Your task to perform on an android device: Add "asus rog" to the cart on ebay, then select checkout. Image 0: 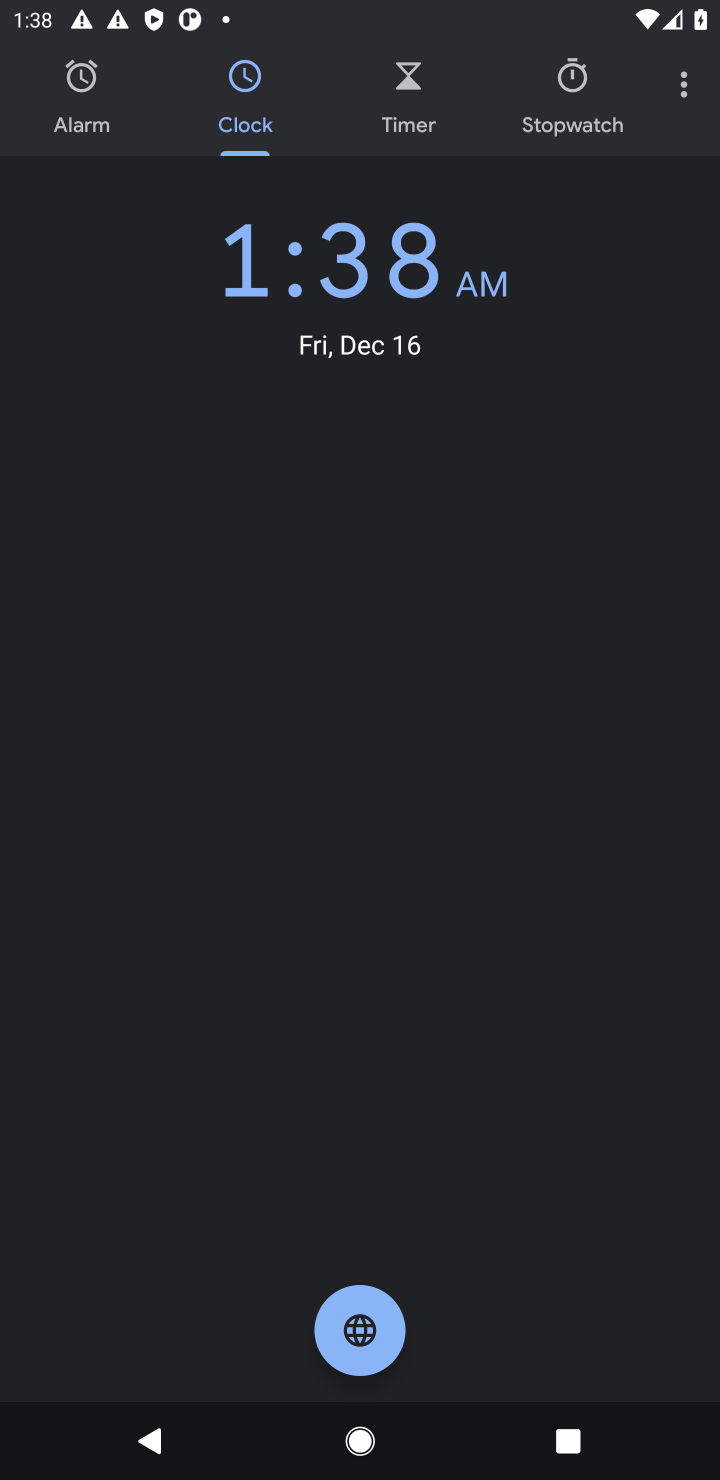
Step 0: press home button
Your task to perform on an android device: Add "asus rog" to the cart on ebay, then select checkout. Image 1: 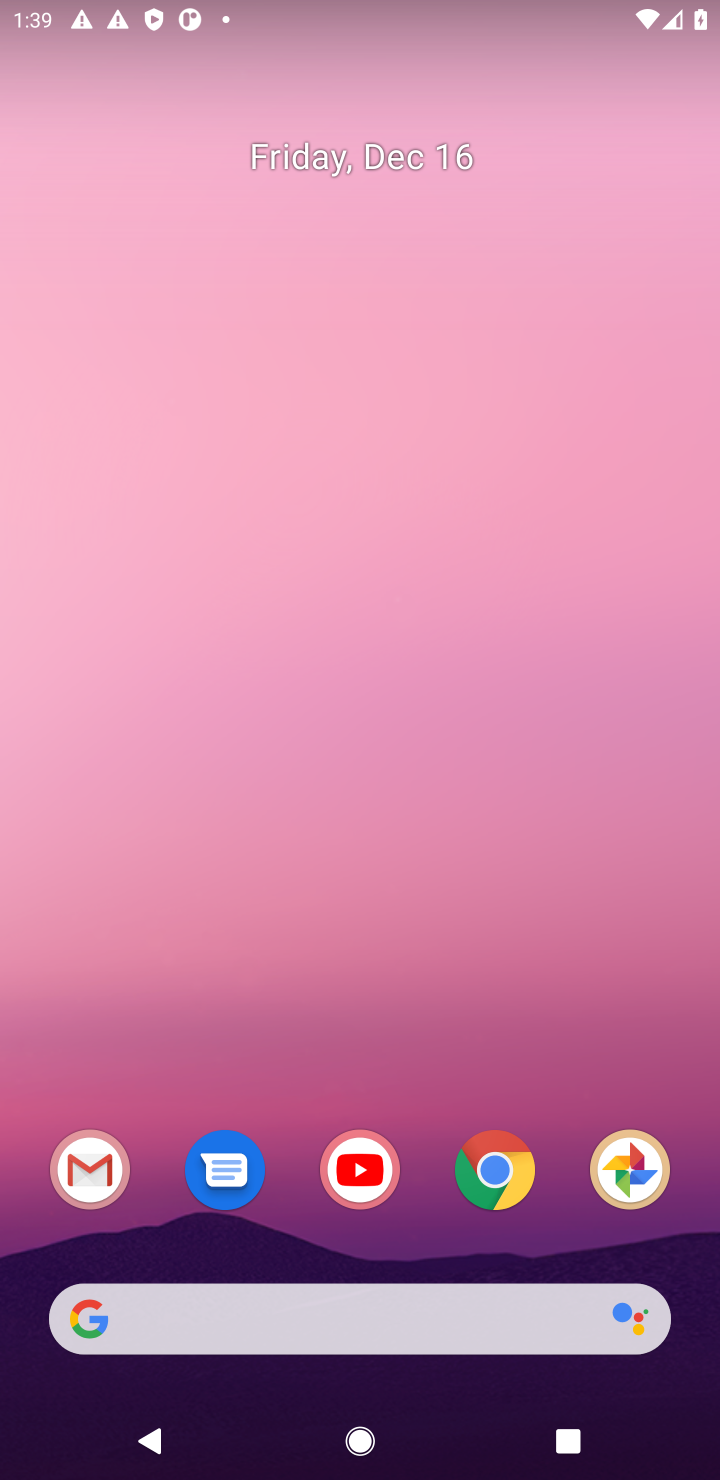
Step 1: click (484, 1179)
Your task to perform on an android device: Add "asus rog" to the cart on ebay, then select checkout. Image 2: 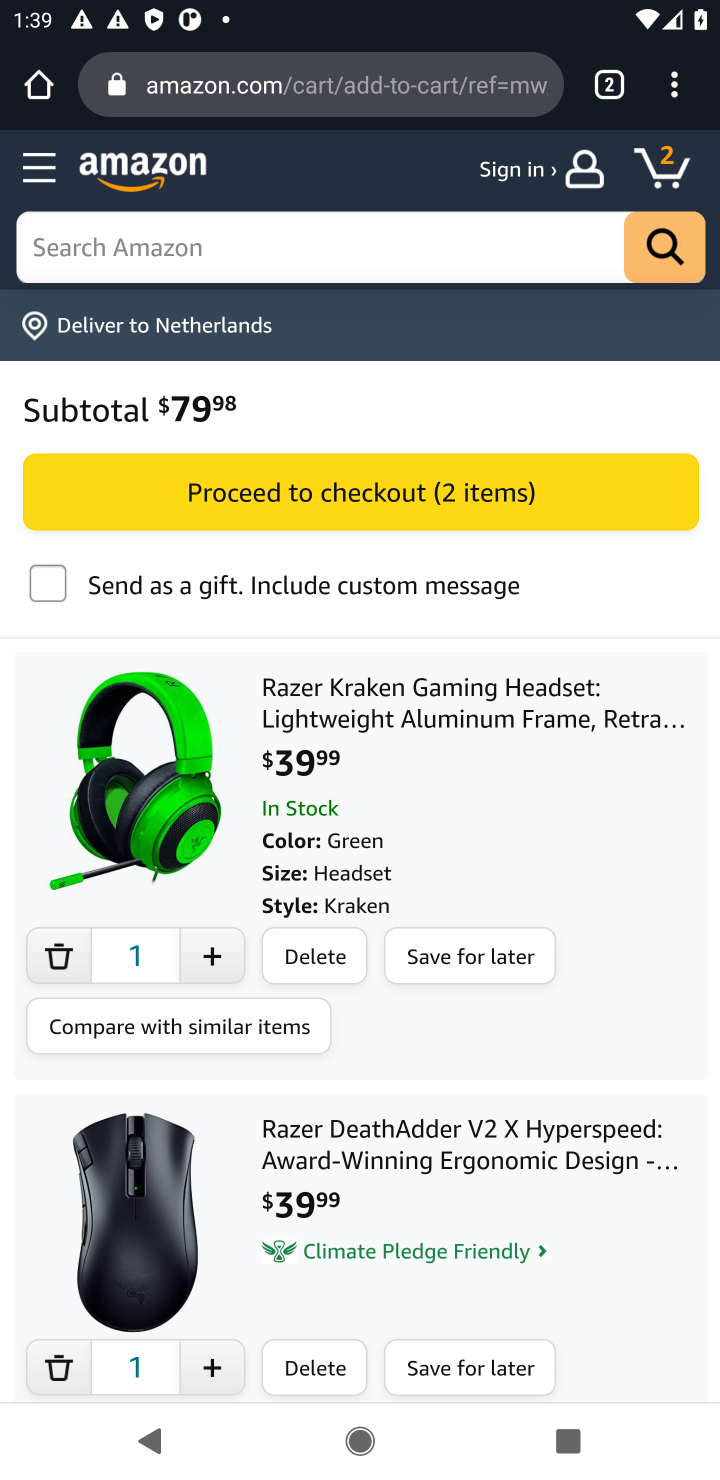
Step 2: click (317, 101)
Your task to perform on an android device: Add "asus rog" to the cart on ebay, then select checkout. Image 3: 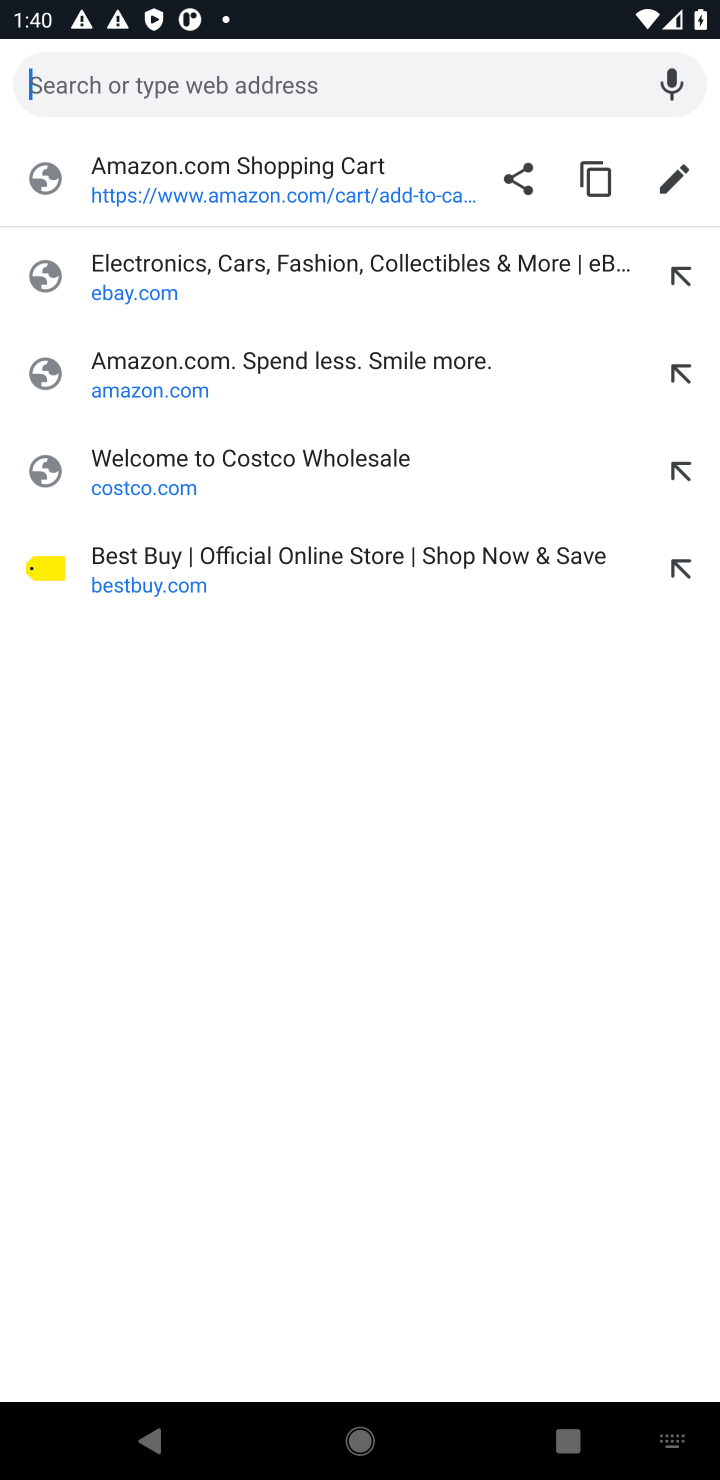
Step 3: click (137, 297)
Your task to perform on an android device: Add "asus rog" to the cart on ebay, then select checkout. Image 4: 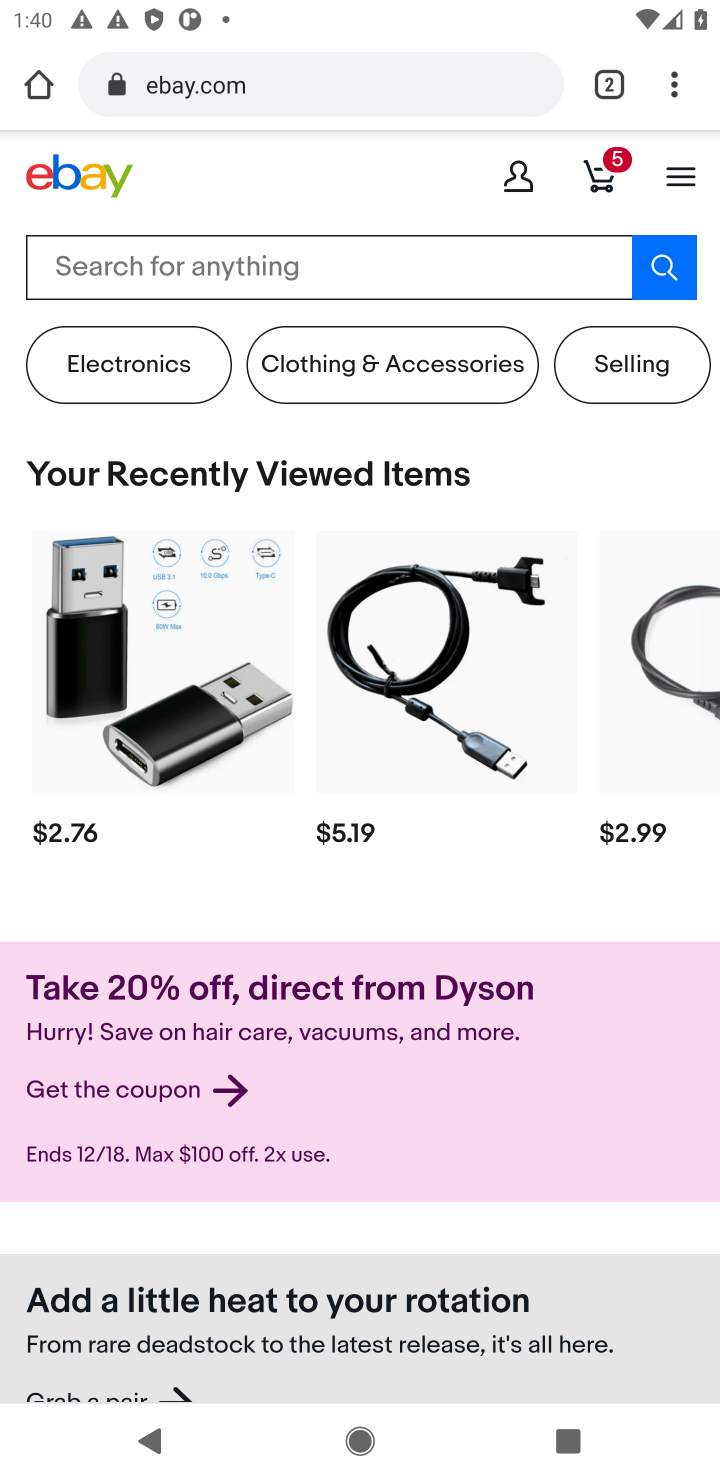
Step 4: click (136, 284)
Your task to perform on an android device: Add "asus rog" to the cart on ebay, then select checkout. Image 5: 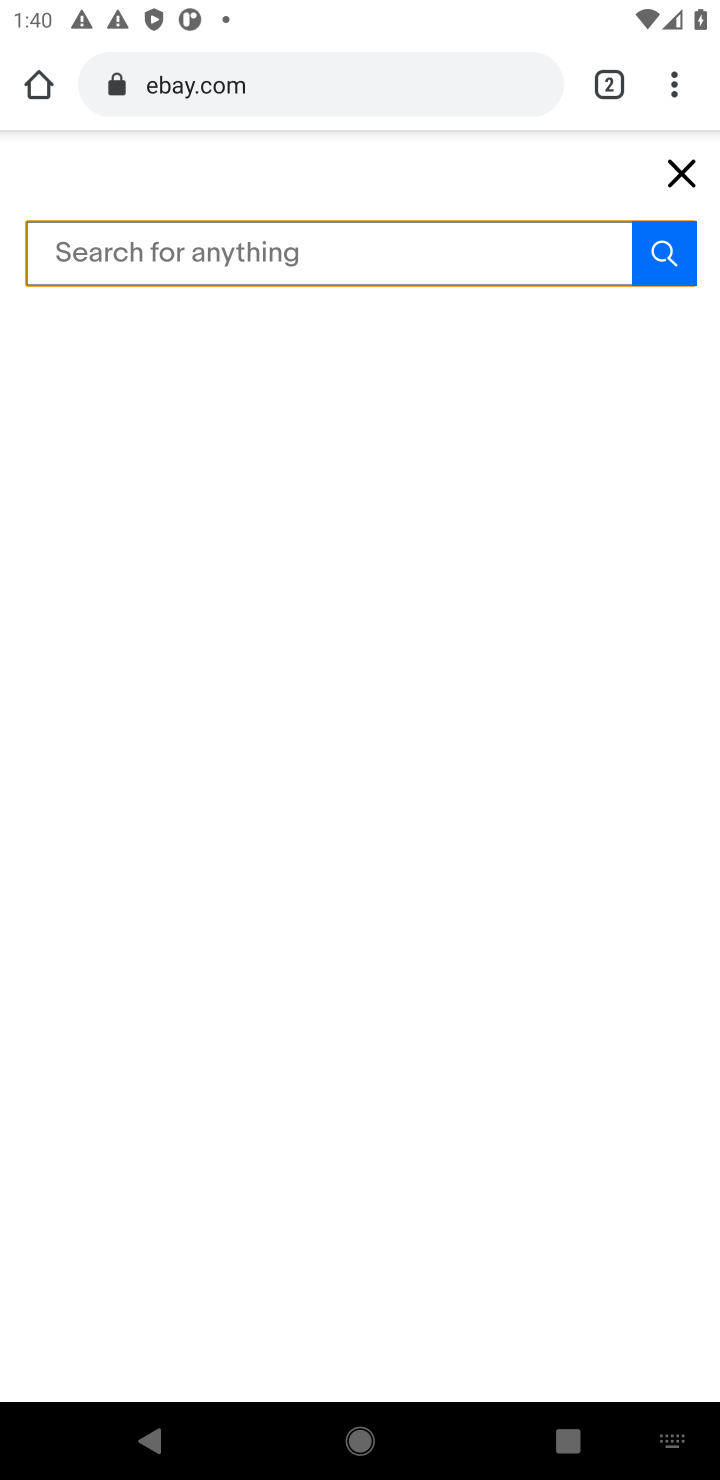
Step 5: type "asus rog"
Your task to perform on an android device: Add "asus rog" to the cart on ebay, then select checkout. Image 6: 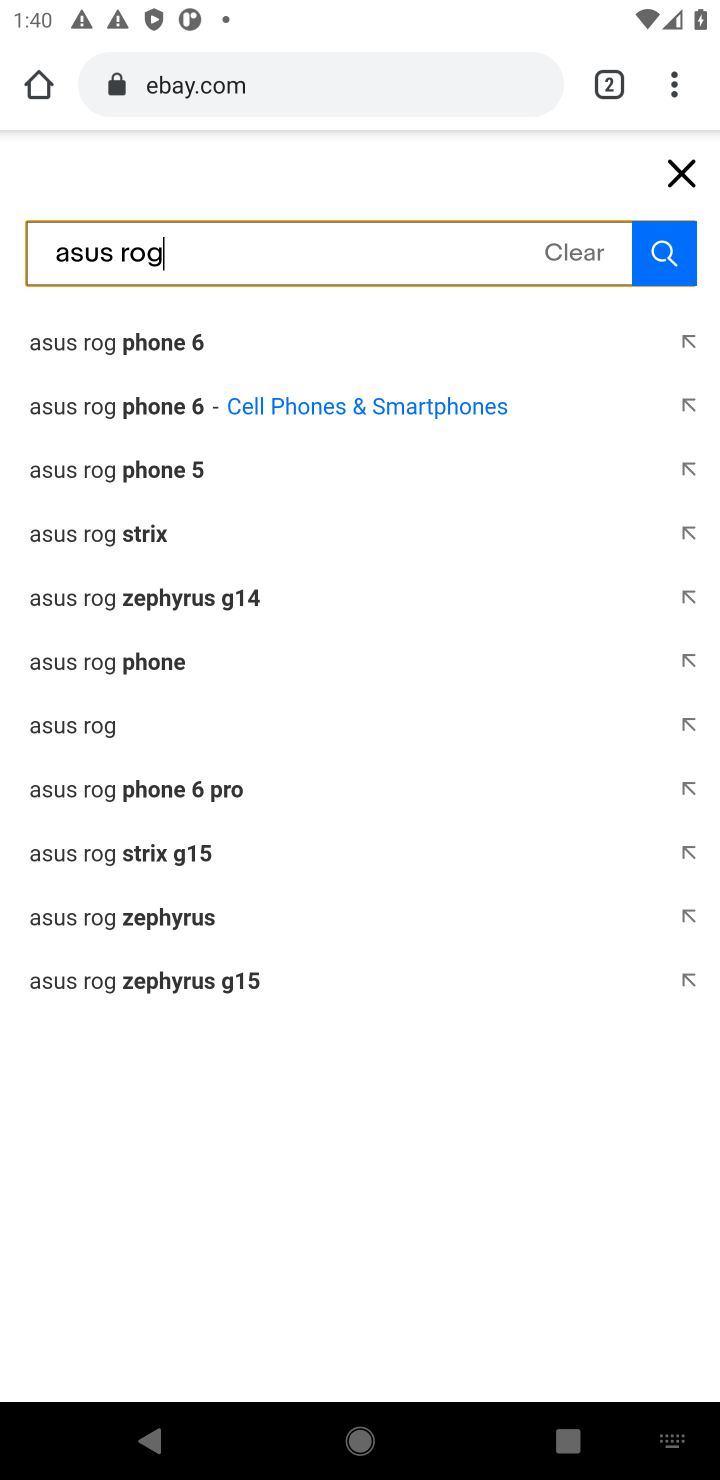
Step 6: click (88, 741)
Your task to perform on an android device: Add "asus rog" to the cart on ebay, then select checkout. Image 7: 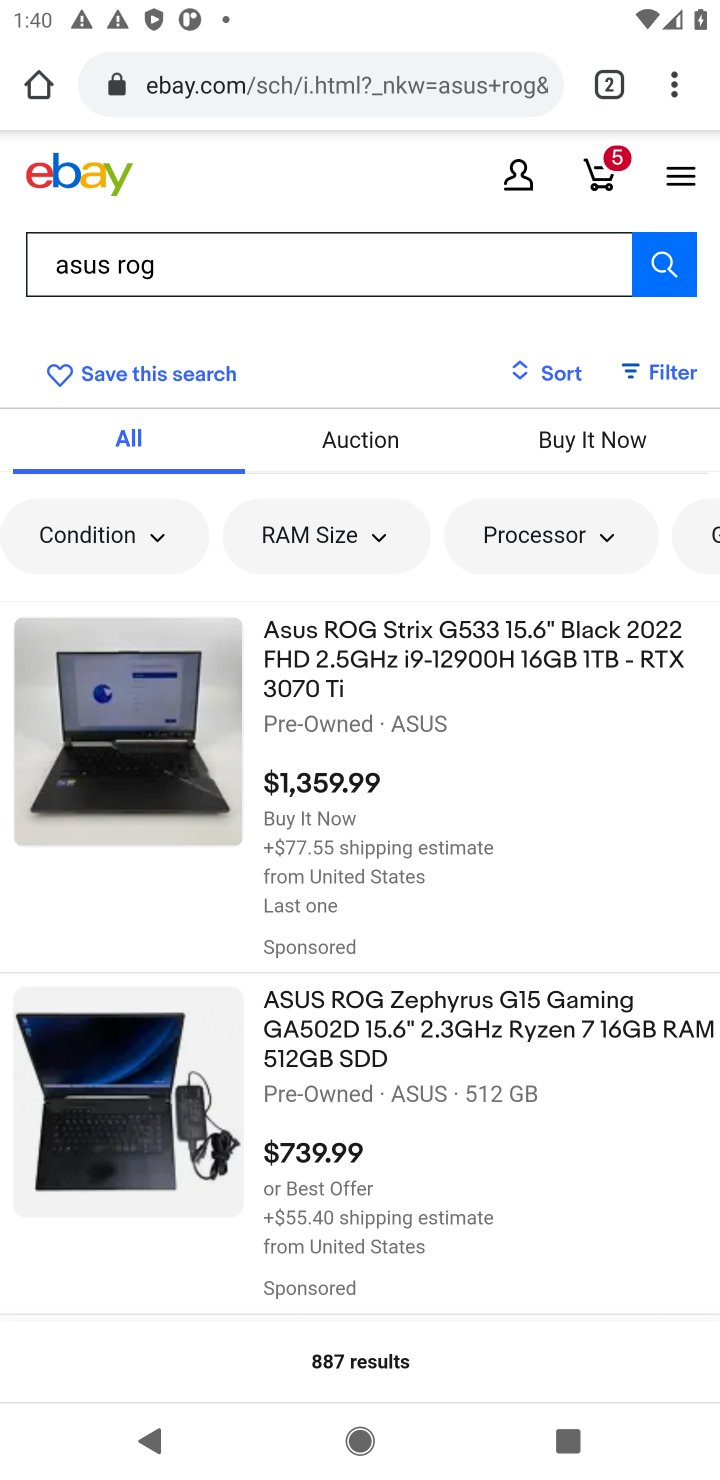
Step 7: click (305, 666)
Your task to perform on an android device: Add "asus rog" to the cart on ebay, then select checkout. Image 8: 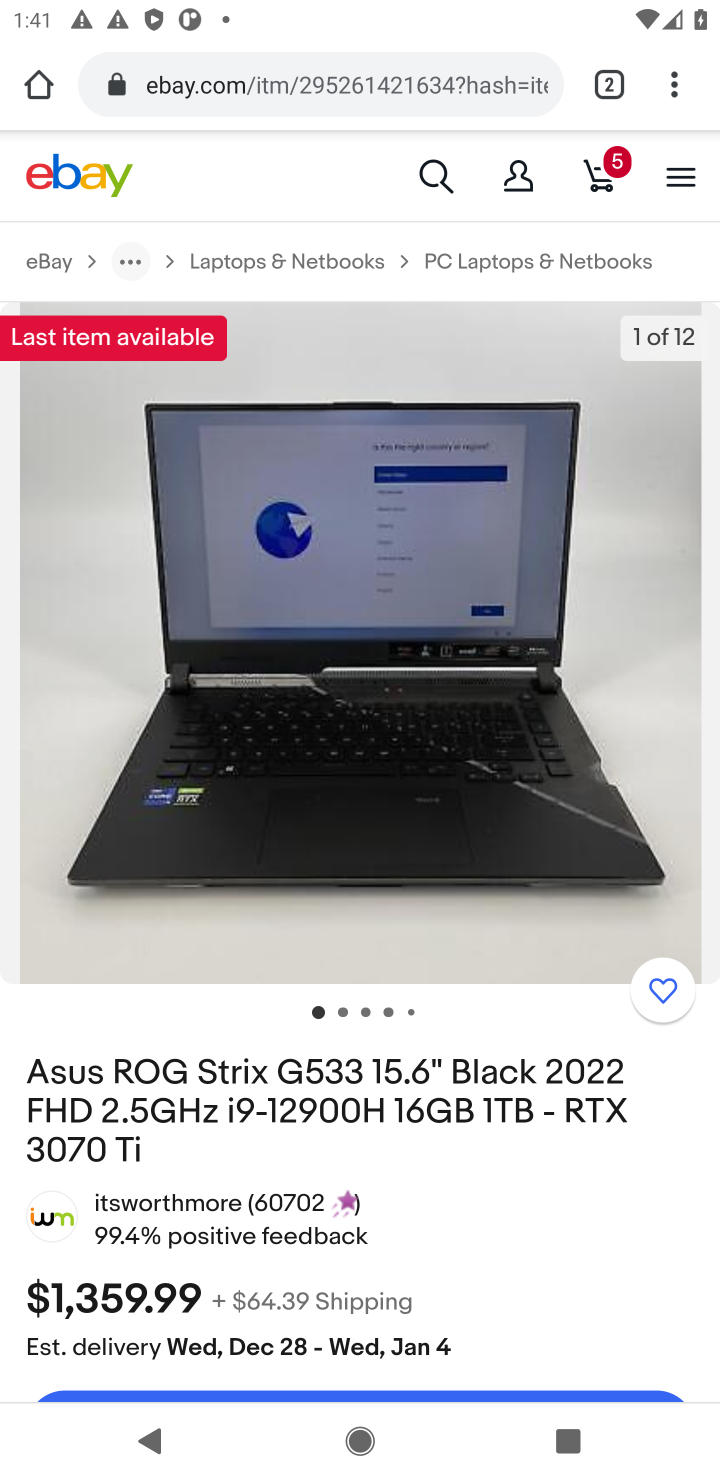
Step 8: drag from (421, 963) to (418, 447)
Your task to perform on an android device: Add "asus rog" to the cart on ebay, then select checkout. Image 9: 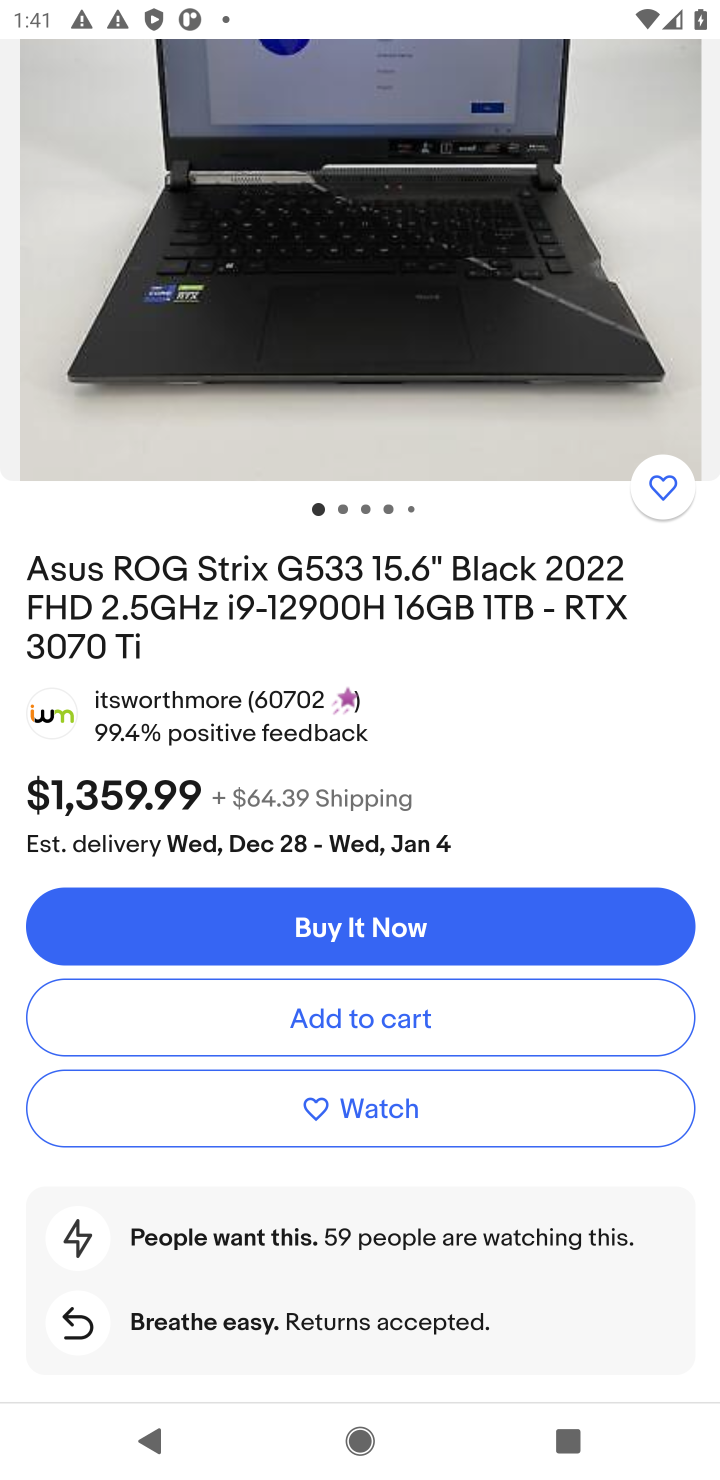
Step 9: click (324, 1016)
Your task to perform on an android device: Add "asus rog" to the cart on ebay, then select checkout. Image 10: 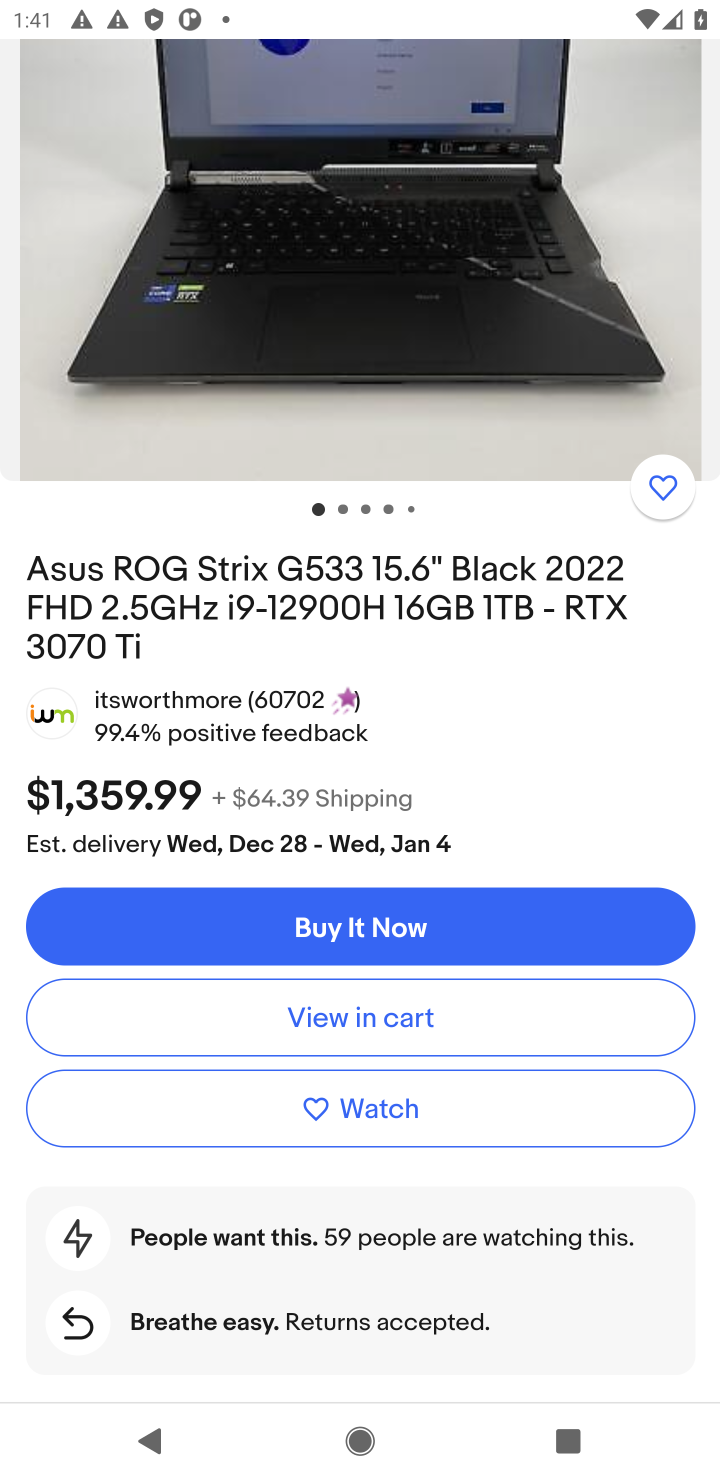
Step 10: click (324, 1016)
Your task to perform on an android device: Add "asus rog" to the cart on ebay, then select checkout. Image 11: 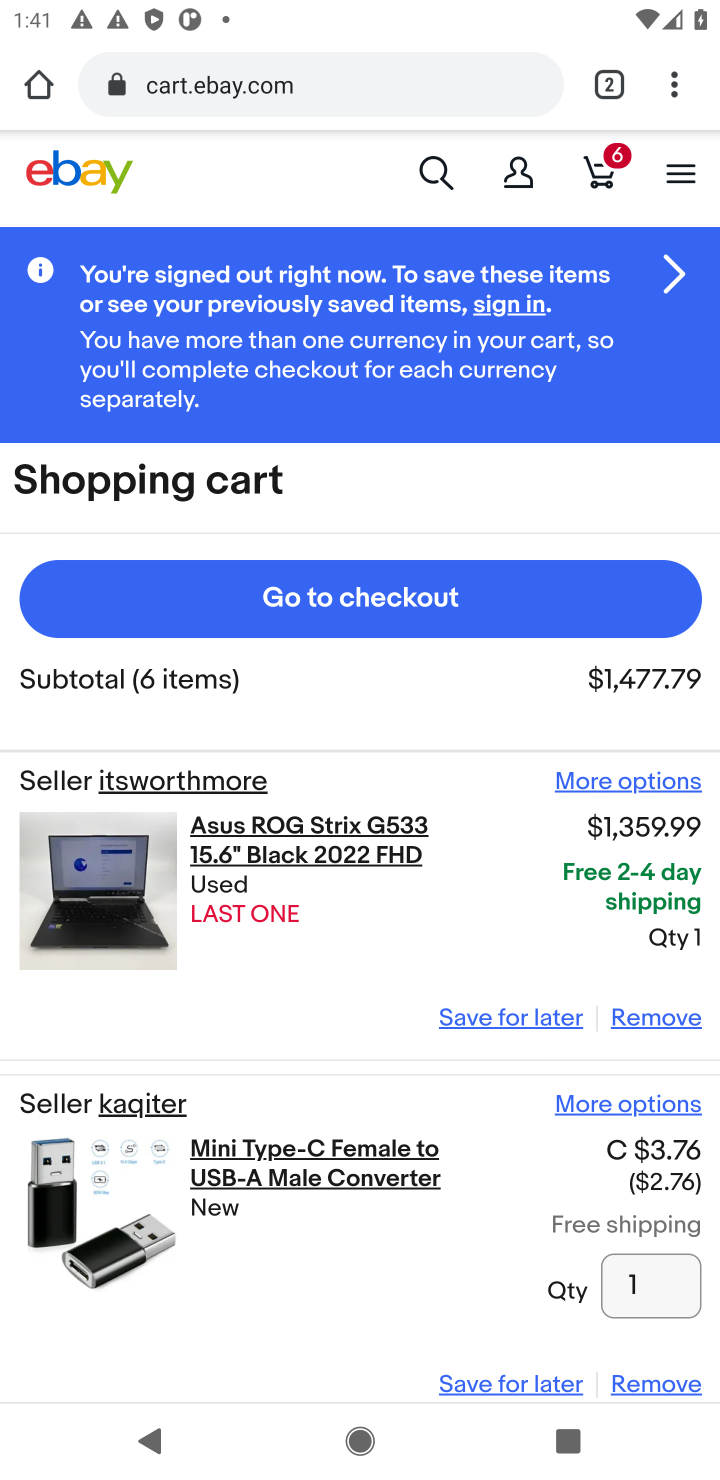
Step 11: click (355, 602)
Your task to perform on an android device: Add "asus rog" to the cart on ebay, then select checkout. Image 12: 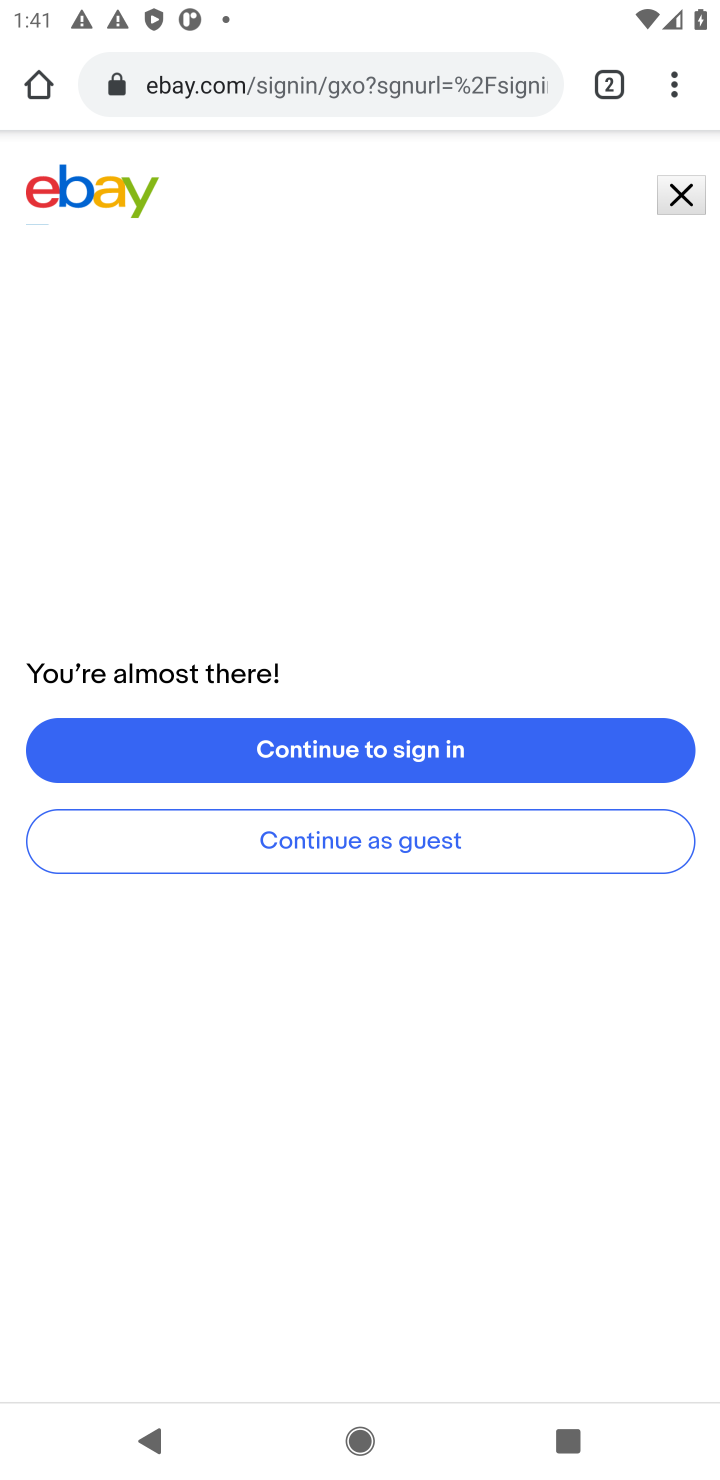
Step 12: task complete